Your task to perform on an android device: uninstall "Instagram" Image 0: 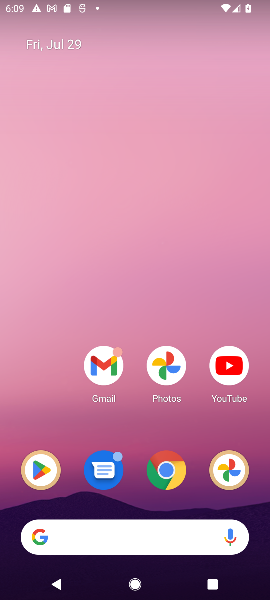
Step 0: drag from (207, 428) to (170, 73)
Your task to perform on an android device: uninstall "Instagram" Image 1: 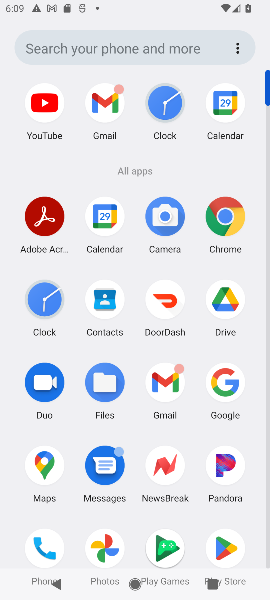
Step 1: click (224, 543)
Your task to perform on an android device: uninstall "Instagram" Image 2: 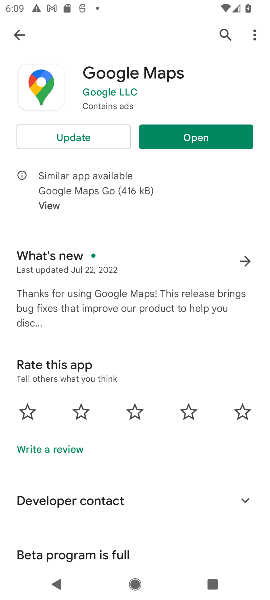
Step 2: click (232, 35)
Your task to perform on an android device: uninstall "Instagram" Image 3: 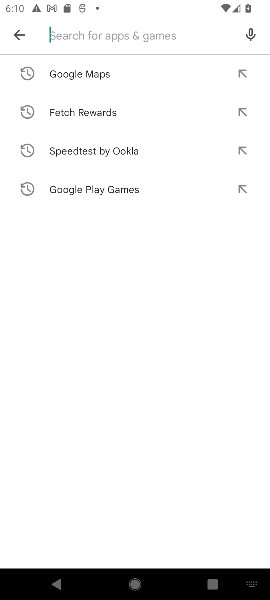
Step 3: type "instagram"
Your task to perform on an android device: uninstall "Instagram" Image 4: 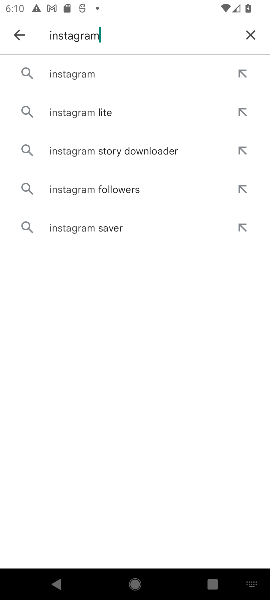
Step 4: press enter
Your task to perform on an android device: uninstall "Instagram" Image 5: 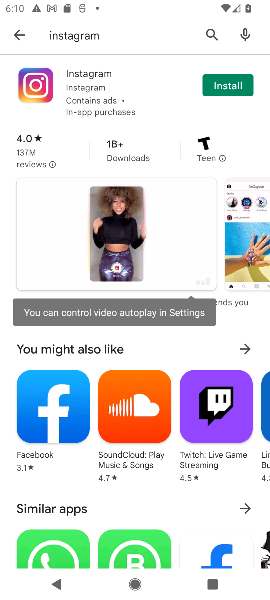
Step 5: task complete